Your task to perform on an android device: Go to network settings Image 0: 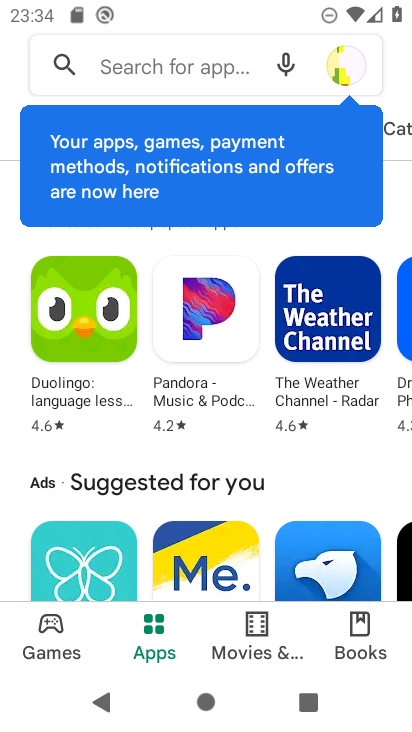
Step 0: press home button
Your task to perform on an android device: Go to network settings Image 1: 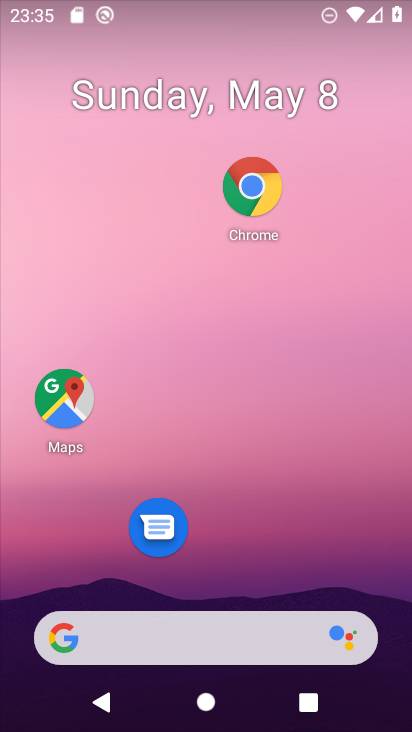
Step 1: drag from (272, 549) to (301, 242)
Your task to perform on an android device: Go to network settings Image 2: 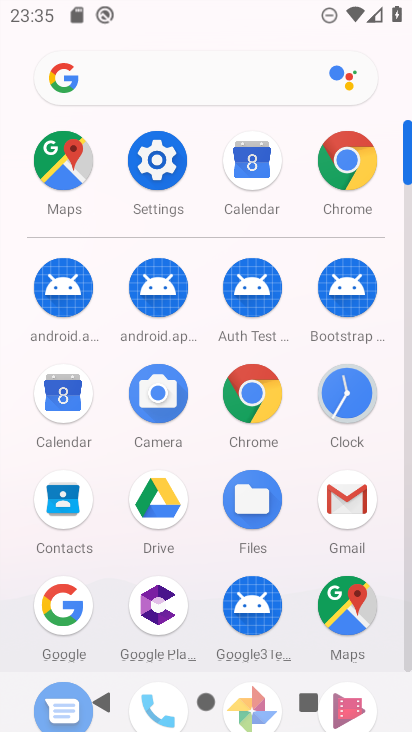
Step 2: click (141, 159)
Your task to perform on an android device: Go to network settings Image 3: 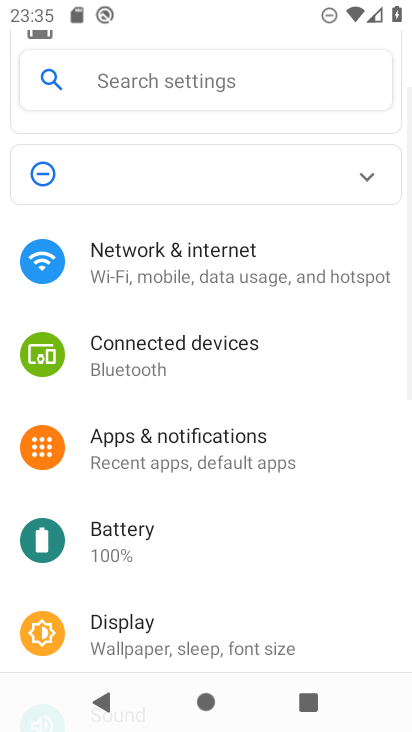
Step 3: click (229, 252)
Your task to perform on an android device: Go to network settings Image 4: 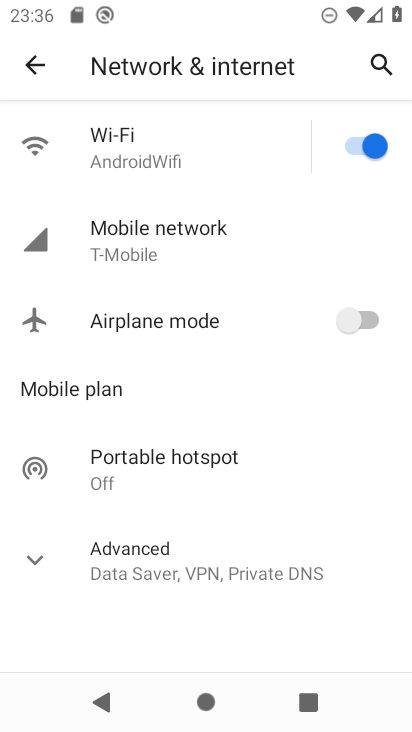
Step 4: task complete